Your task to perform on an android device: toggle sleep mode Image 0: 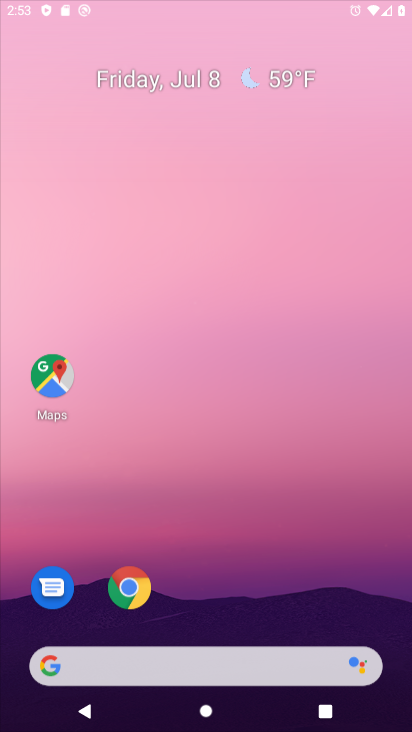
Step 0: drag from (205, 605) to (241, 27)
Your task to perform on an android device: toggle sleep mode Image 1: 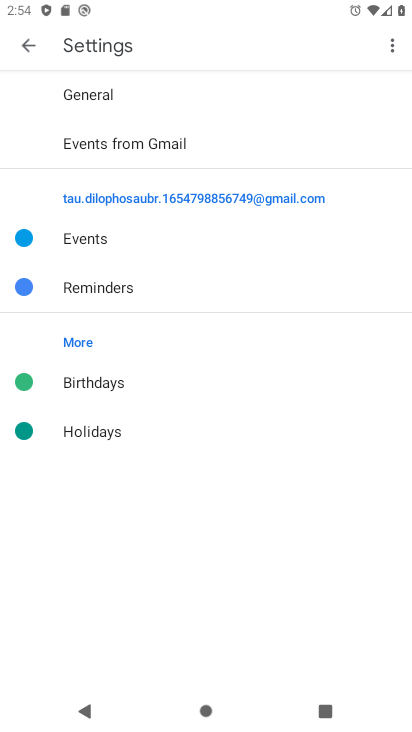
Step 1: press home button
Your task to perform on an android device: toggle sleep mode Image 2: 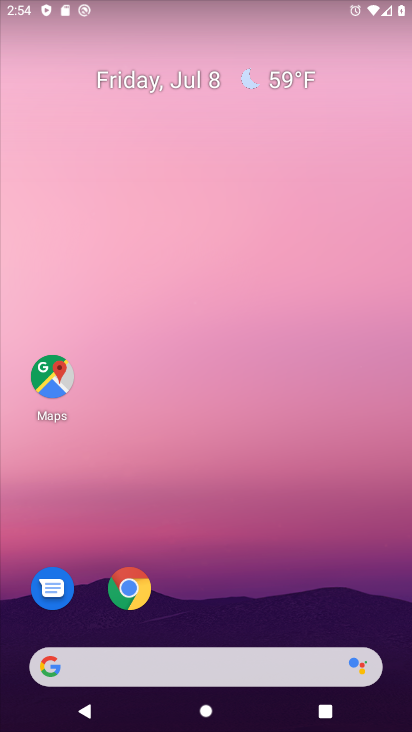
Step 2: drag from (275, 595) to (309, 206)
Your task to perform on an android device: toggle sleep mode Image 3: 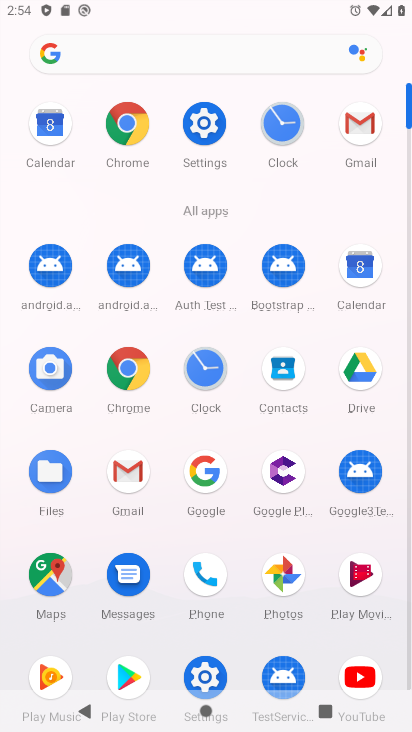
Step 3: click (218, 144)
Your task to perform on an android device: toggle sleep mode Image 4: 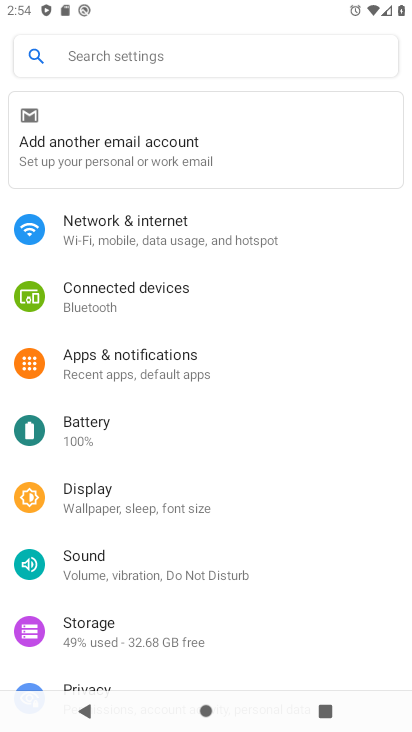
Step 4: click (168, 63)
Your task to perform on an android device: toggle sleep mode Image 5: 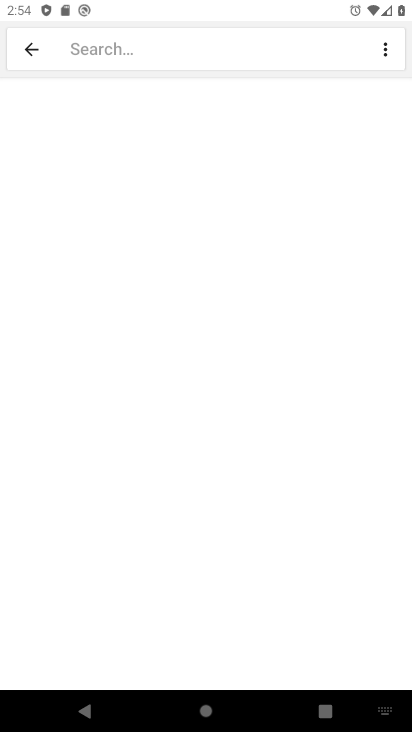
Step 5: type "sleep mode"
Your task to perform on an android device: toggle sleep mode Image 6: 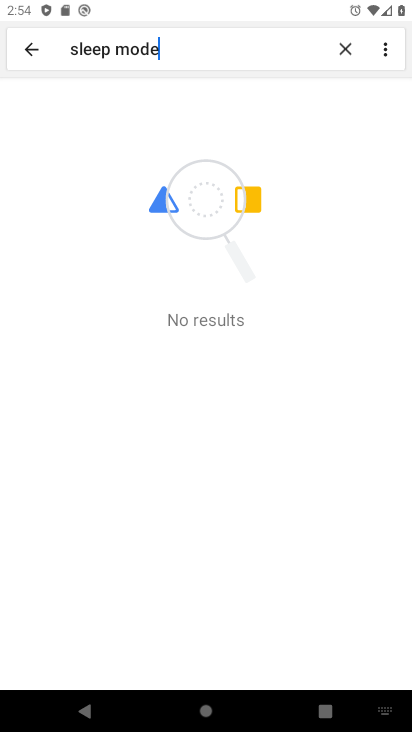
Step 6: task complete